Your task to perform on an android device: search for starred emails in the gmail app Image 0: 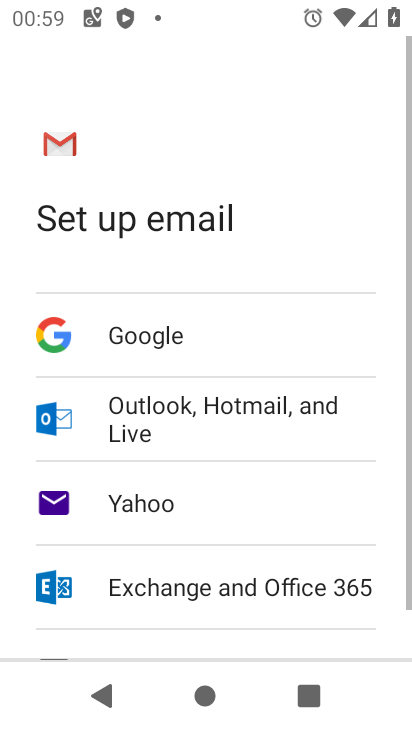
Step 0: press home button
Your task to perform on an android device: search for starred emails in the gmail app Image 1: 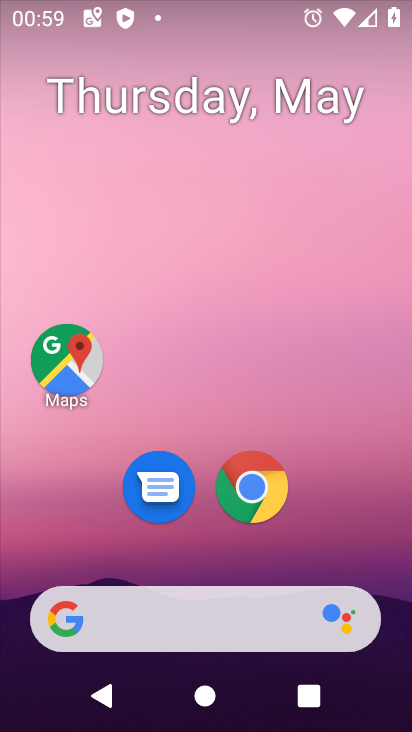
Step 1: drag from (359, 582) to (332, 7)
Your task to perform on an android device: search for starred emails in the gmail app Image 2: 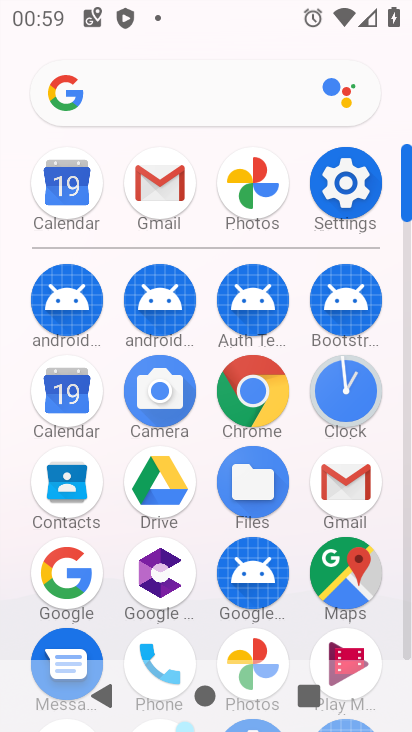
Step 2: click (149, 190)
Your task to perform on an android device: search for starred emails in the gmail app Image 3: 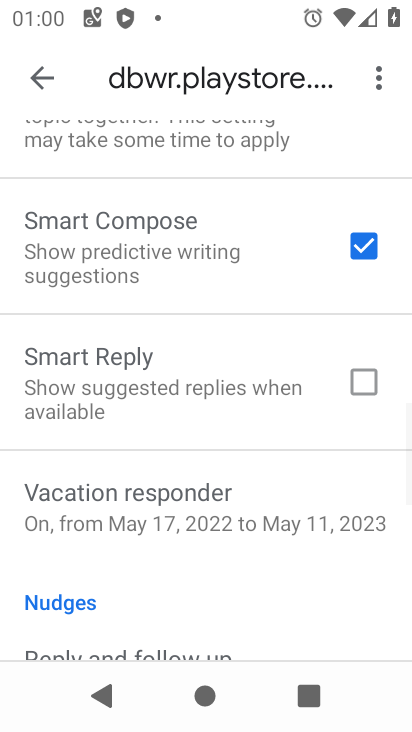
Step 3: click (39, 78)
Your task to perform on an android device: search for starred emails in the gmail app Image 4: 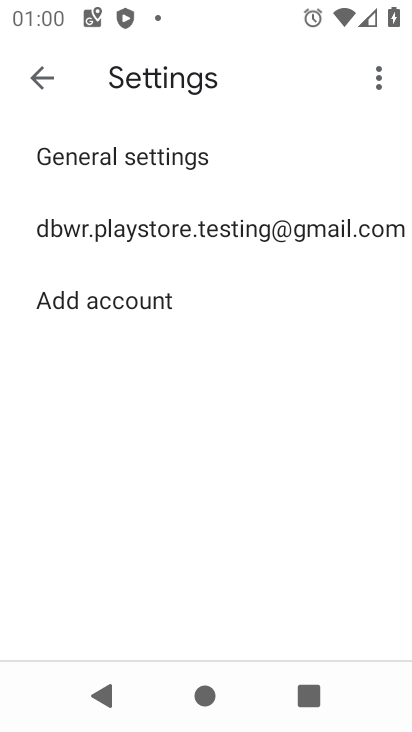
Step 4: click (39, 78)
Your task to perform on an android device: search for starred emails in the gmail app Image 5: 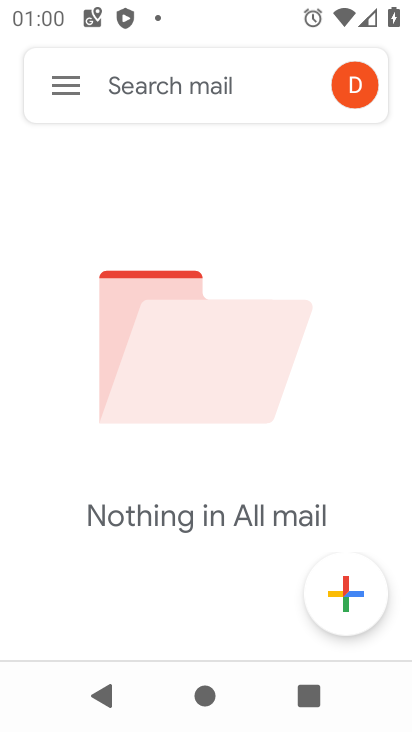
Step 5: click (65, 74)
Your task to perform on an android device: search for starred emails in the gmail app Image 6: 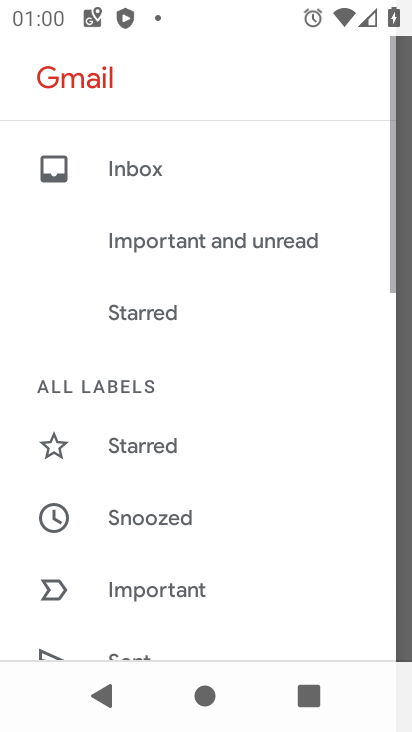
Step 6: drag from (231, 251) to (239, 663)
Your task to perform on an android device: search for starred emails in the gmail app Image 7: 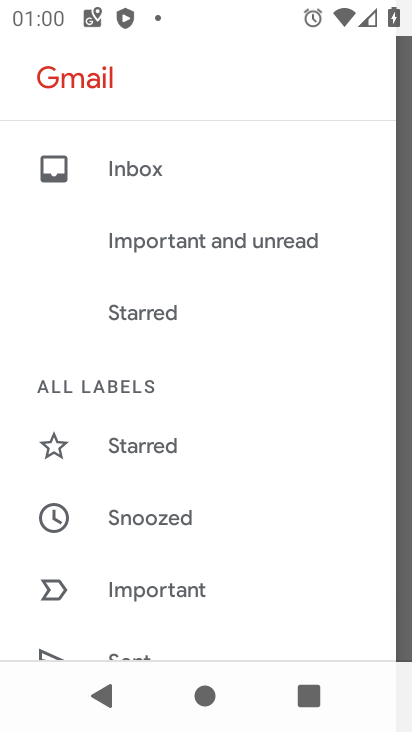
Step 7: click (117, 451)
Your task to perform on an android device: search for starred emails in the gmail app Image 8: 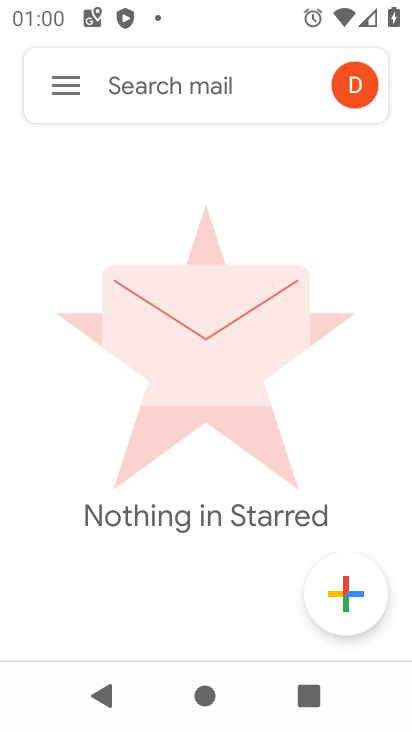
Step 8: task complete